Your task to perform on an android device: toggle pop-ups in chrome Image 0: 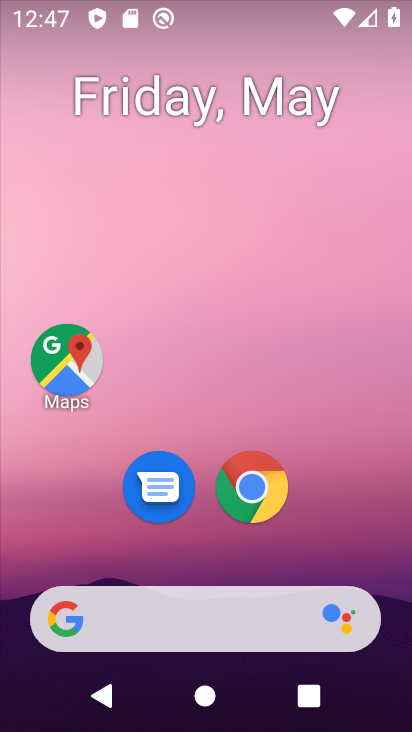
Step 0: click (244, 483)
Your task to perform on an android device: toggle pop-ups in chrome Image 1: 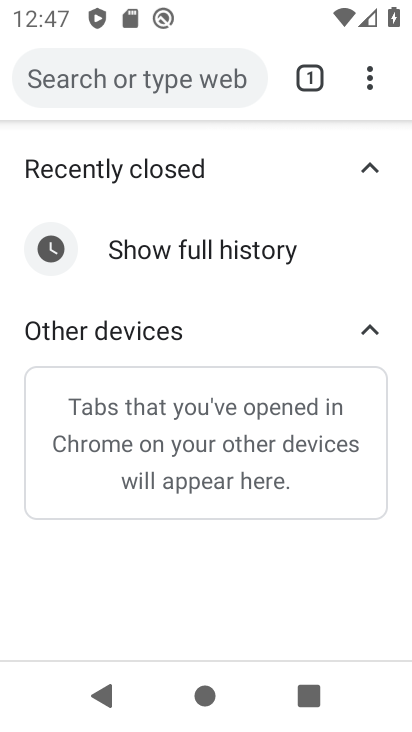
Step 1: click (373, 66)
Your task to perform on an android device: toggle pop-ups in chrome Image 2: 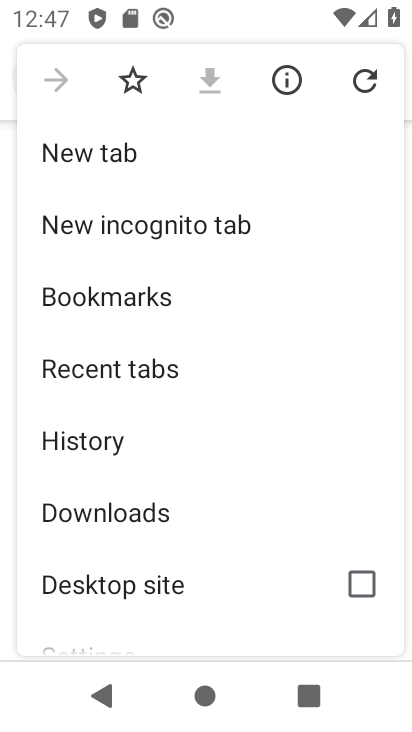
Step 2: drag from (117, 638) to (174, 288)
Your task to perform on an android device: toggle pop-ups in chrome Image 3: 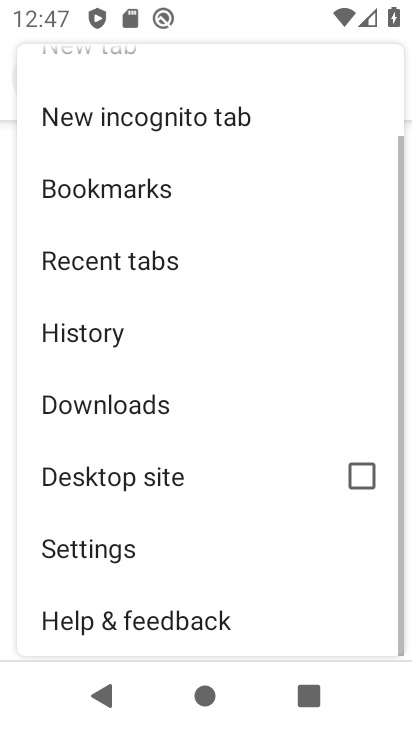
Step 3: click (145, 563)
Your task to perform on an android device: toggle pop-ups in chrome Image 4: 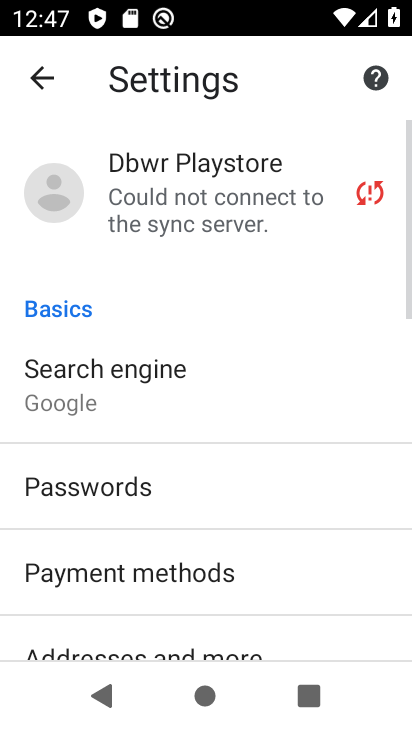
Step 4: drag from (145, 563) to (226, 251)
Your task to perform on an android device: toggle pop-ups in chrome Image 5: 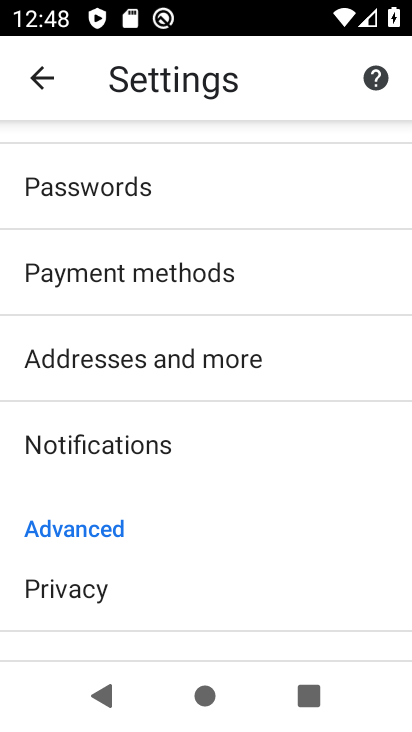
Step 5: drag from (177, 558) to (255, 232)
Your task to perform on an android device: toggle pop-ups in chrome Image 6: 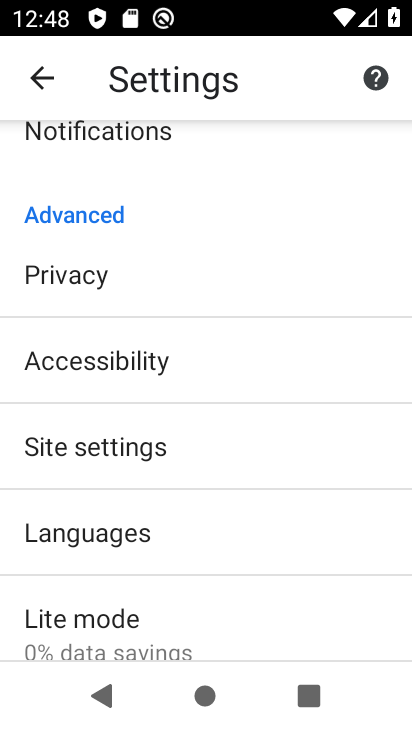
Step 6: click (155, 435)
Your task to perform on an android device: toggle pop-ups in chrome Image 7: 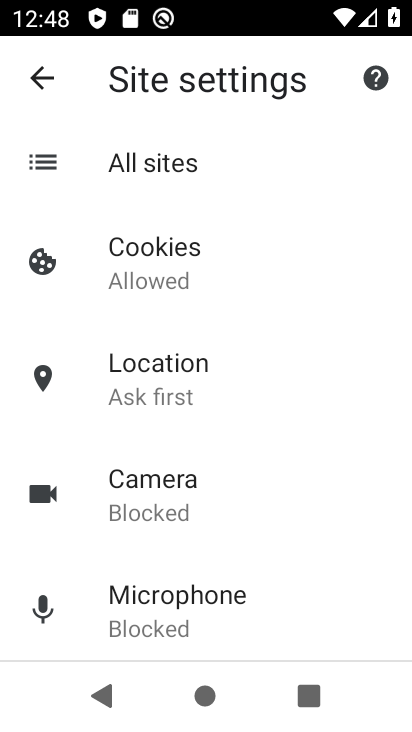
Step 7: drag from (122, 586) to (254, 219)
Your task to perform on an android device: toggle pop-ups in chrome Image 8: 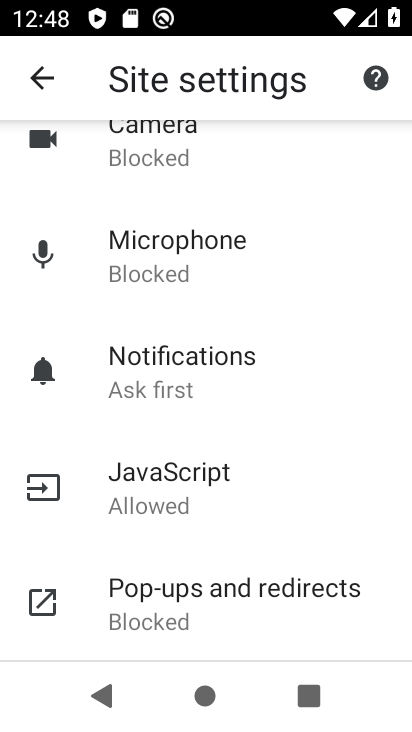
Step 8: click (153, 589)
Your task to perform on an android device: toggle pop-ups in chrome Image 9: 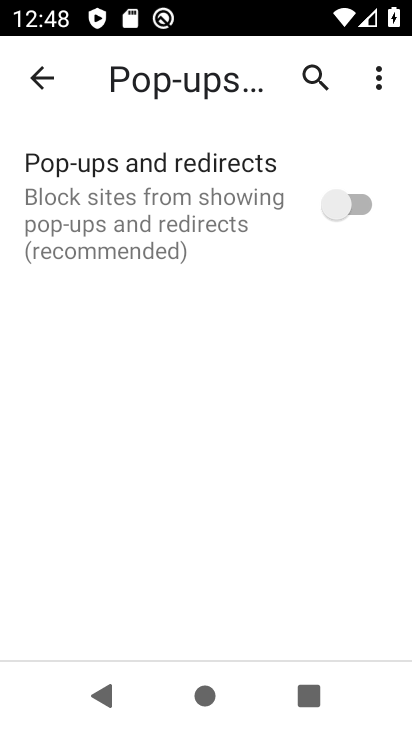
Step 9: click (359, 210)
Your task to perform on an android device: toggle pop-ups in chrome Image 10: 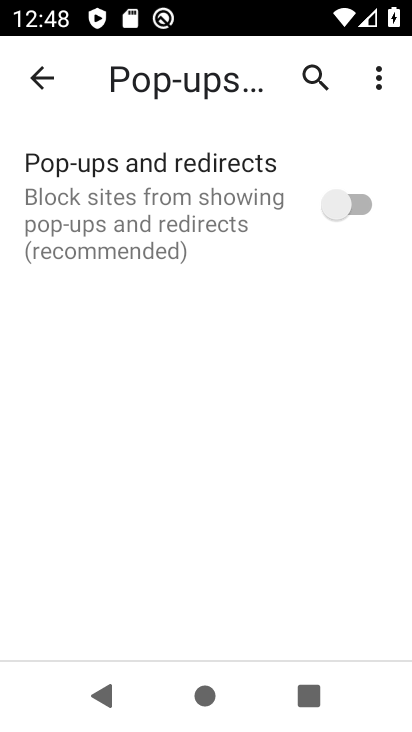
Step 10: click (359, 210)
Your task to perform on an android device: toggle pop-ups in chrome Image 11: 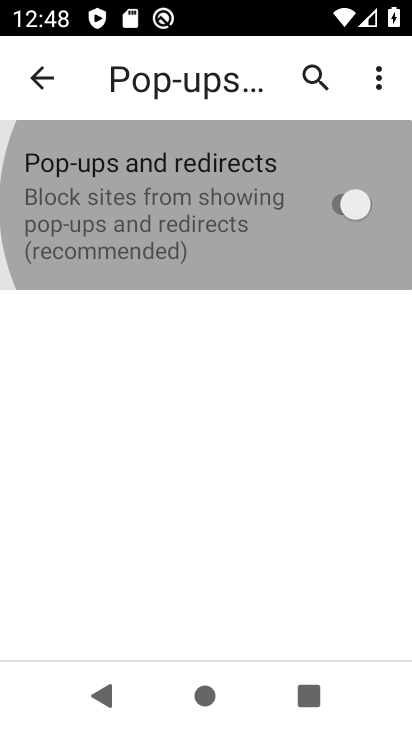
Step 11: click (359, 209)
Your task to perform on an android device: toggle pop-ups in chrome Image 12: 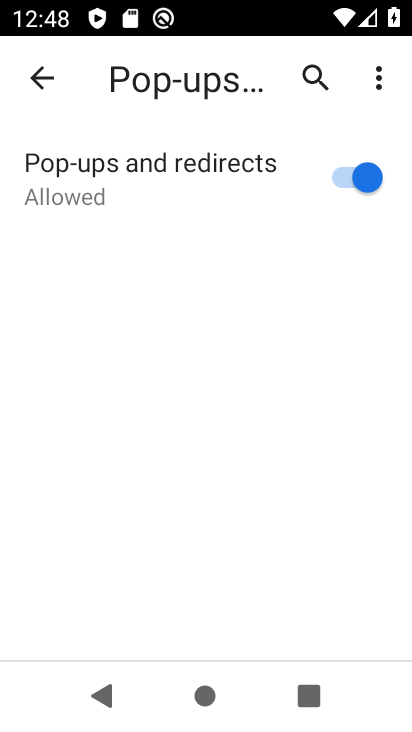
Step 12: click (359, 210)
Your task to perform on an android device: toggle pop-ups in chrome Image 13: 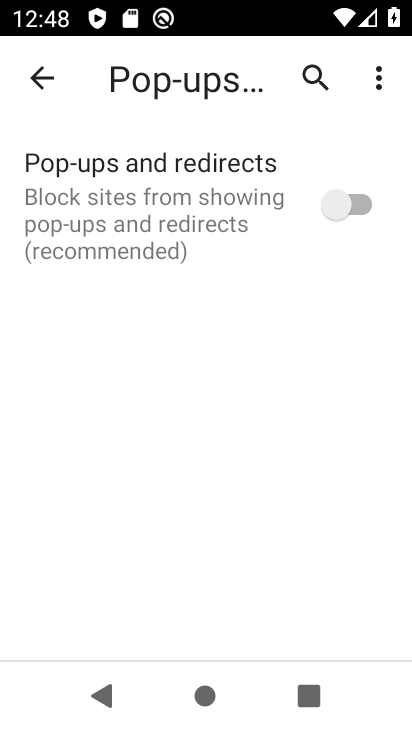
Step 13: click (350, 186)
Your task to perform on an android device: toggle pop-ups in chrome Image 14: 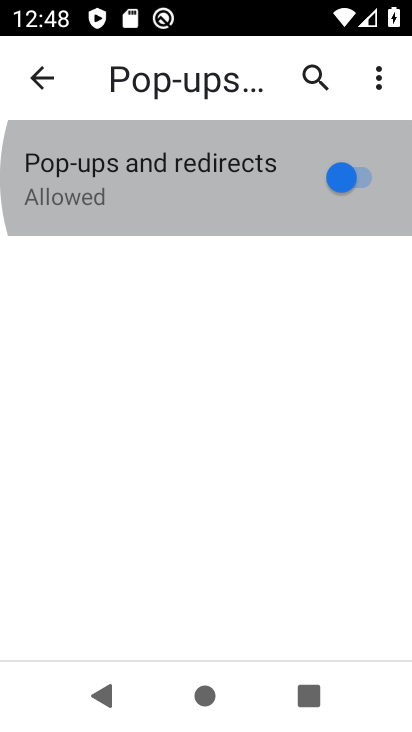
Step 14: click (350, 186)
Your task to perform on an android device: toggle pop-ups in chrome Image 15: 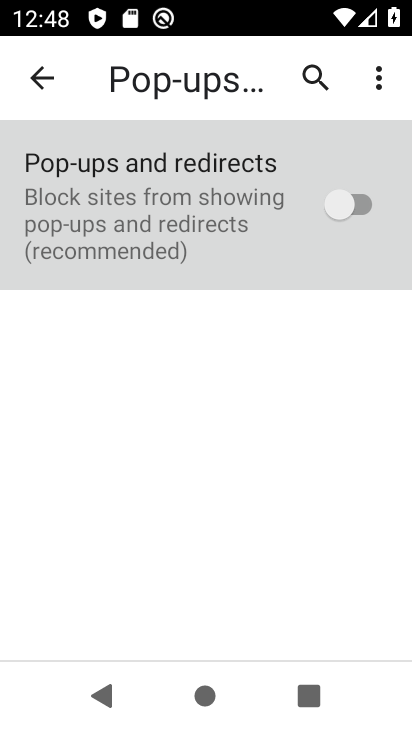
Step 15: task complete